Your task to perform on an android device: clear history in the chrome app Image 0: 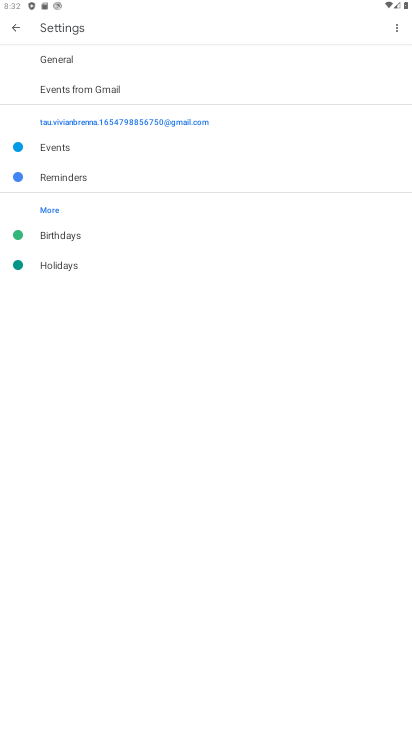
Step 0: press home button
Your task to perform on an android device: clear history in the chrome app Image 1: 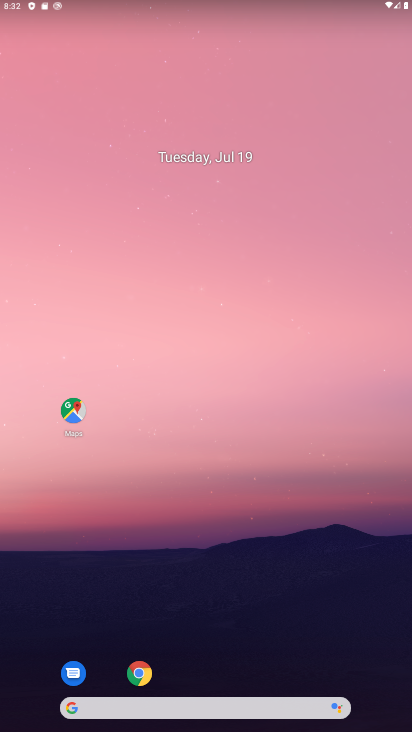
Step 1: click (141, 677)
Your task to perform on an android device: clear history in the chrome app Image 2: 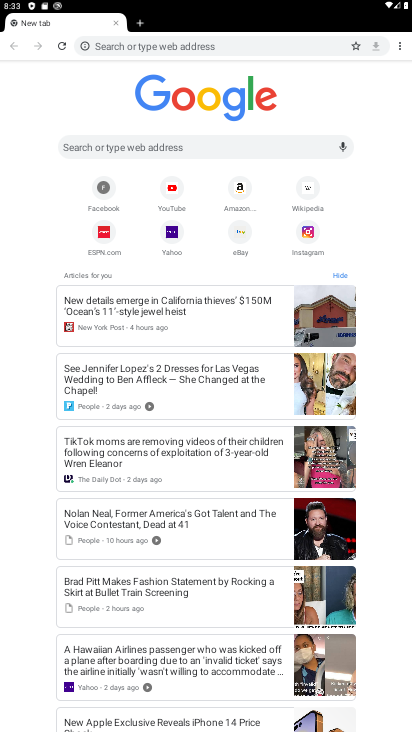
Step 2: click (393, 50)
Your task to perform on an android device: clear history in the chrome app Image 3: 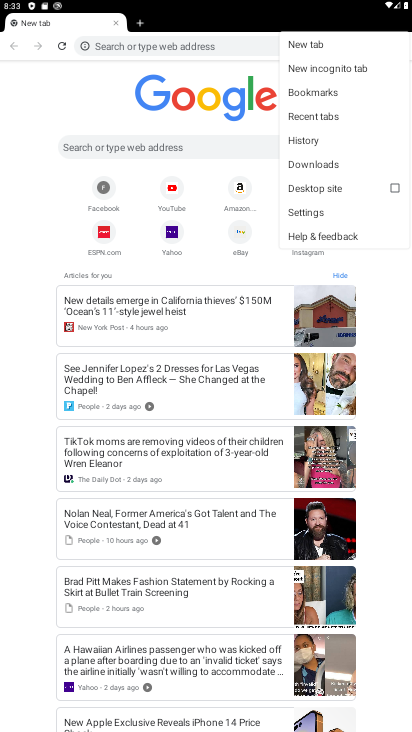
Step 3: click (334, 211)
Your task to perform on an android device: clear history in the chrome app Image 4: 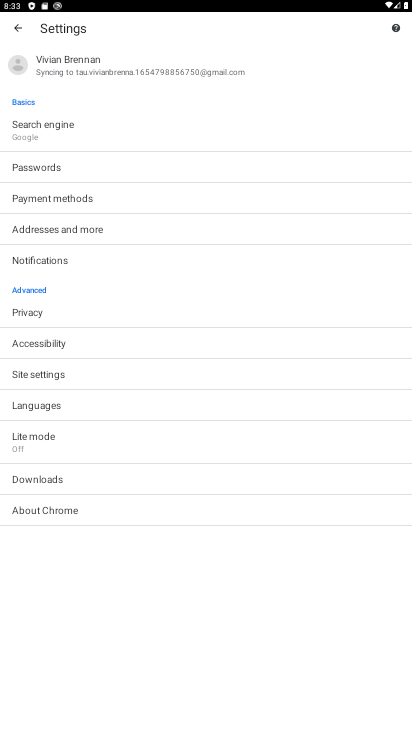
Step 4: click (18, 33)
Your task to perform on an android device: clear history in the chrome app Image 5: 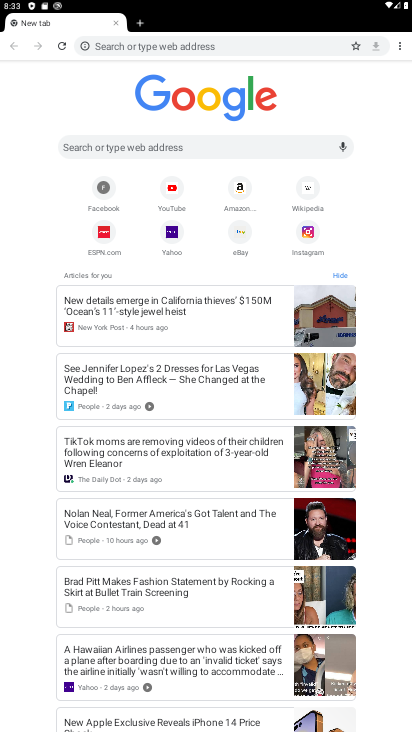
Step 5: click (399, 50)
Your task to perform on an android device: clear history in the chrome app Image 6: 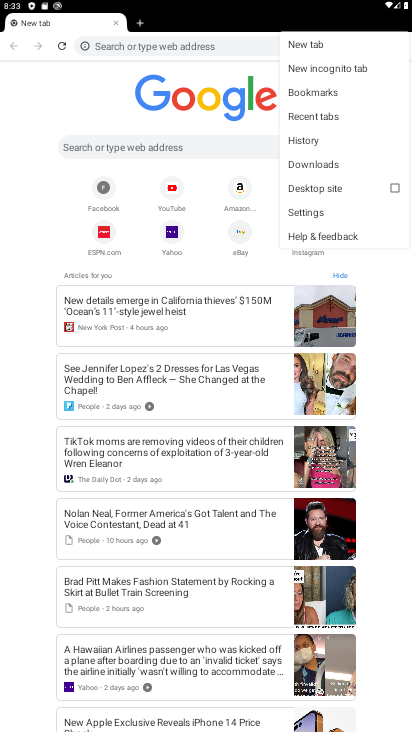
Step 6: click (314, 141)
Your task to perform on an android device: clear history in the chrome app Image 7: 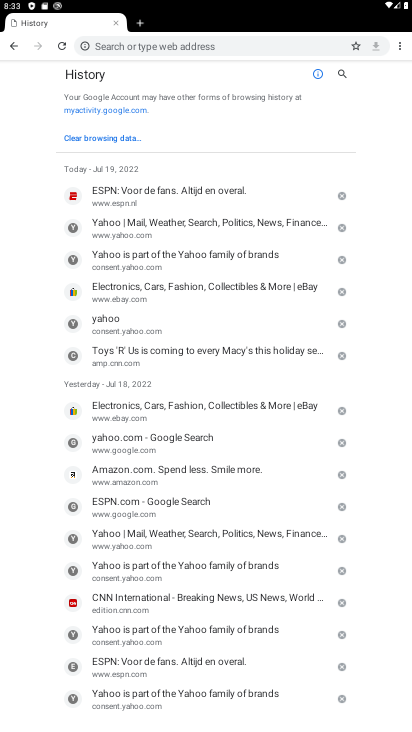
Step 7: click (108, 136)
Your task to perform on an android device: clear history in the chrome app Image 8: 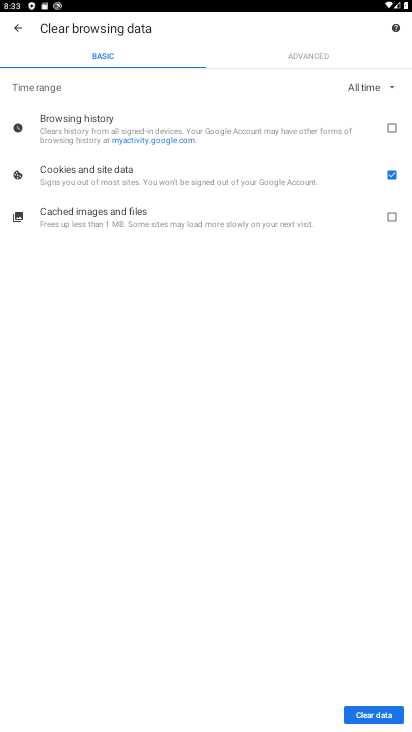
Step 8: click (394, 133)
Your task to perform on an android device: clear history in the chrome app Image 9: 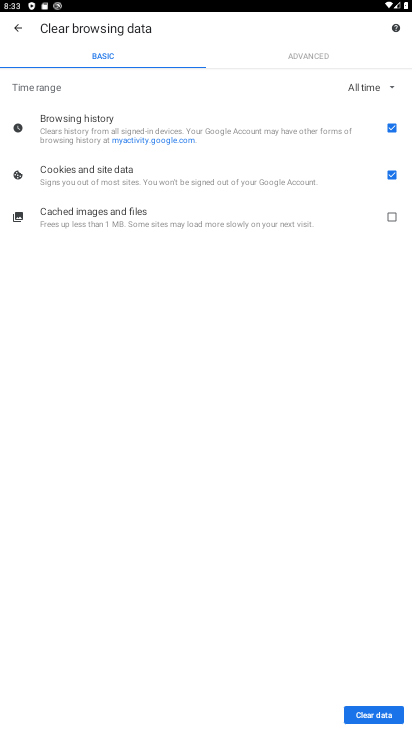
Step 9: click (394, 177)
Your task to perform on an android device: clear history in the chrome app Image 10: 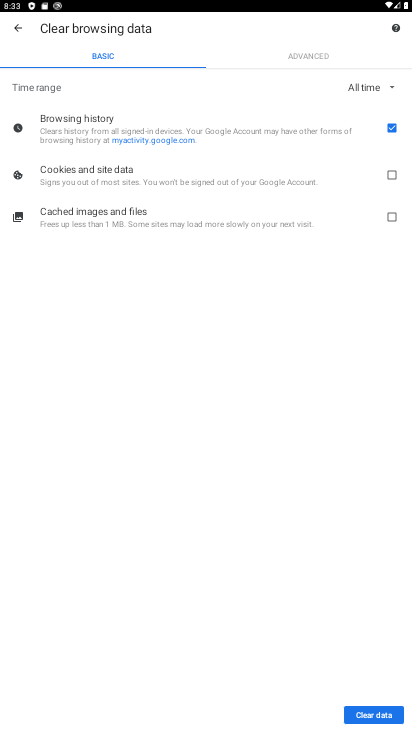
Step 10: click (375, 716)
Your task to perform on an android device: clear history in the chrome app Image 11: 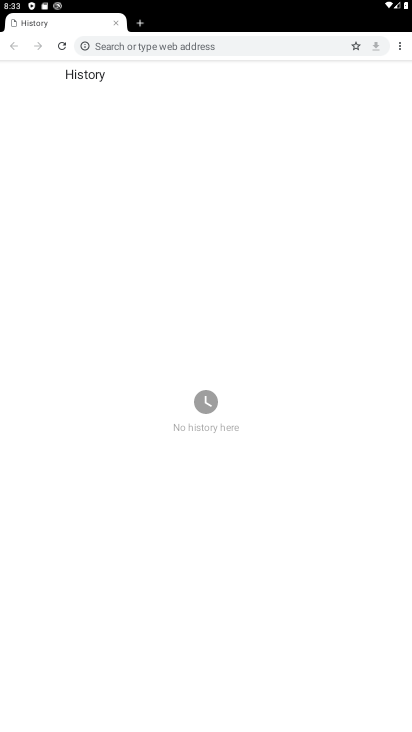
Step 11: task complete